Your task to perform on an android device: see tabs open on other devices in the chrome app Image 0: 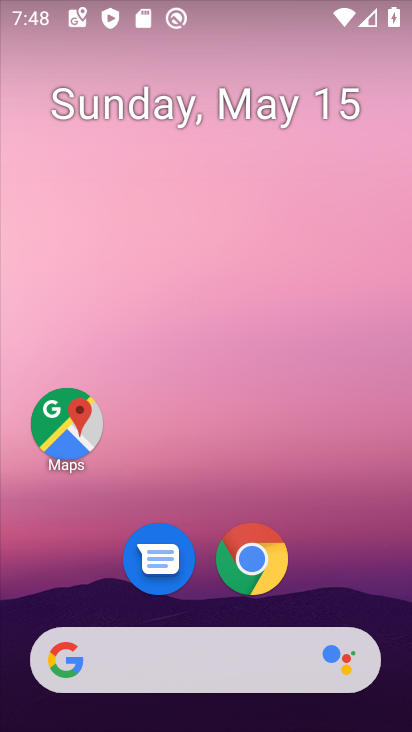
Step 0: click (237, 548)
Your task to perform on an android device: see tabs open on other devices in the chrome app Image 1: 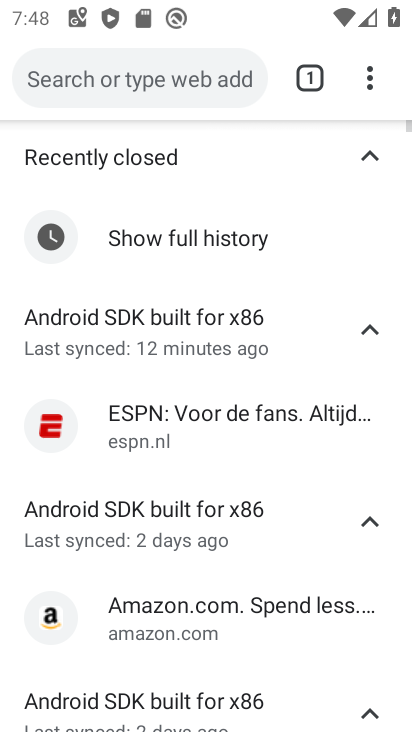
Step 1: task complete